Your task to perform on an android device: What is the news today? Image 0: 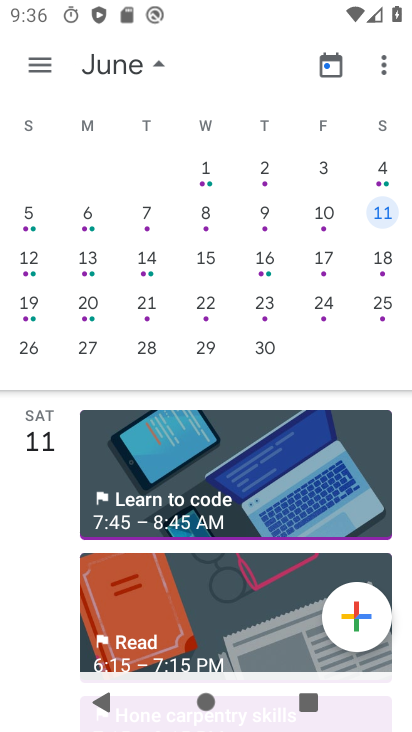
Step 0: press home button
Your task to perform on an android device: What is the news today? Image 1: 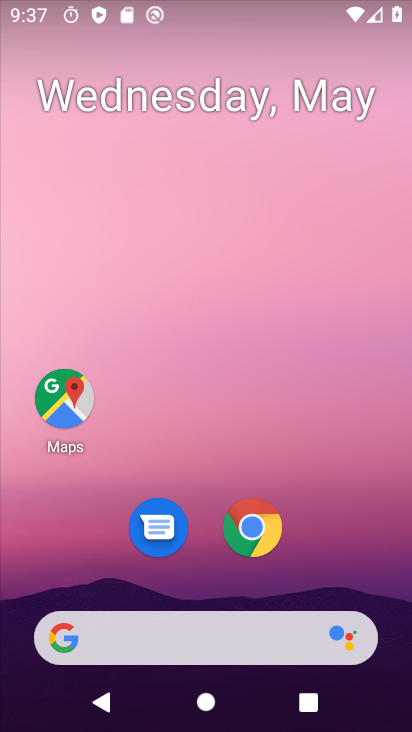
Step 1: click (249, 541)
Your task to perform on an android device: What is the news today? Image 2: 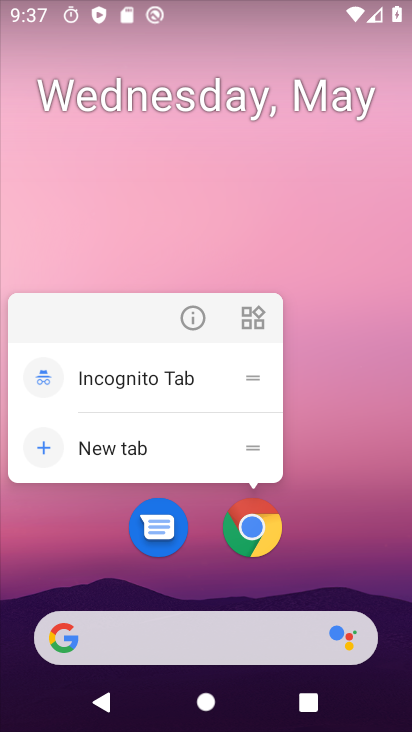
Step 2: click (253, 521)
Your task to perform on an android device: What is the news today? Image 3: 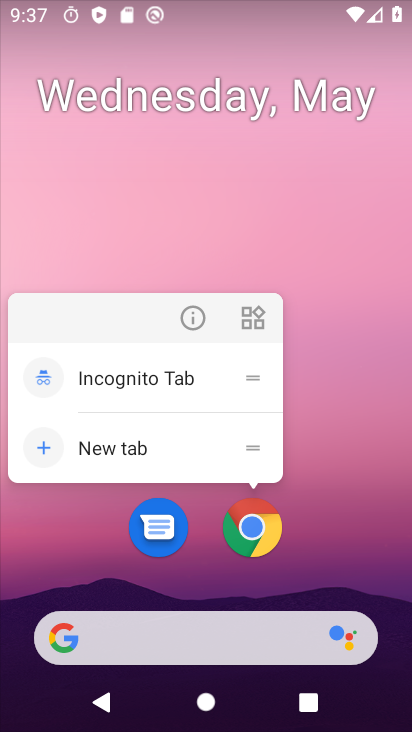
Step 3: click (253, 523)
Your task to perform on an android device: What is the news today? Image 4: 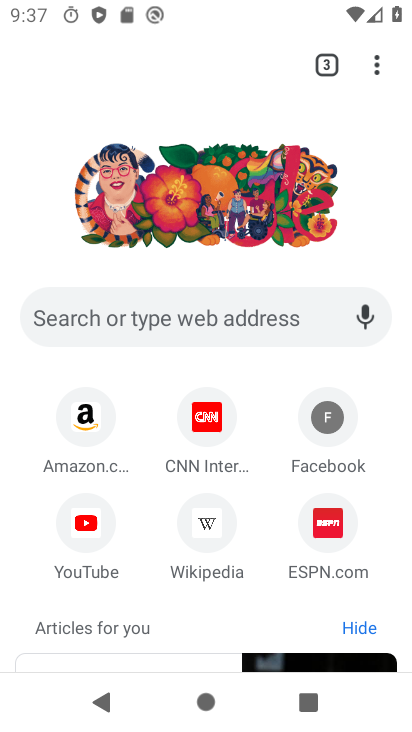
Step 4: type "What is the news today?"
Your task to perform on an android device: What is the news today? Image 5: 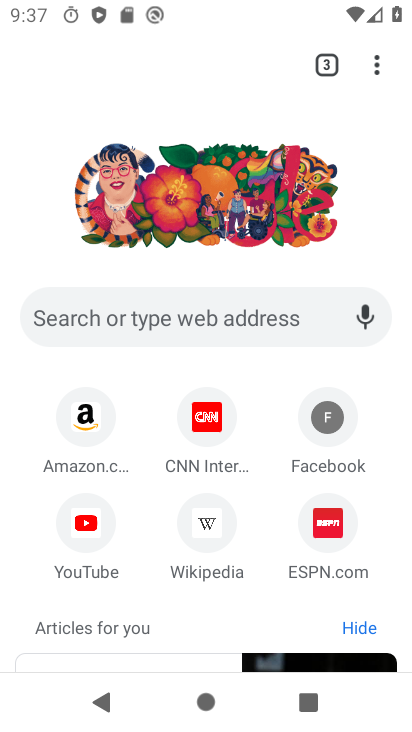
Step 5: click (233, 316)
Your task to perform on an android device: What is the news today? Image 6: 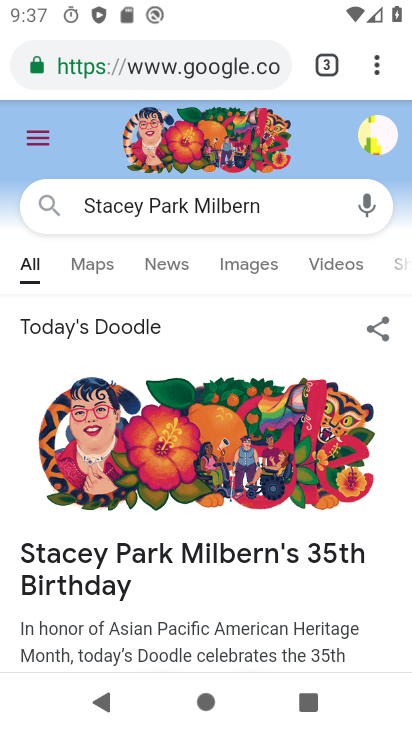
Step 6: type "What is the news today?"
Your task to perform on an android device: What is the news today? Image 7: 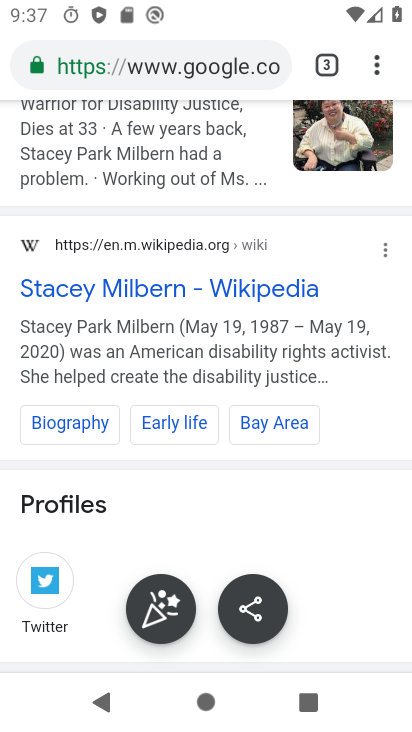
Step 7: task complete